Your task to perform on an android device: Open Google Chrome Image 0: 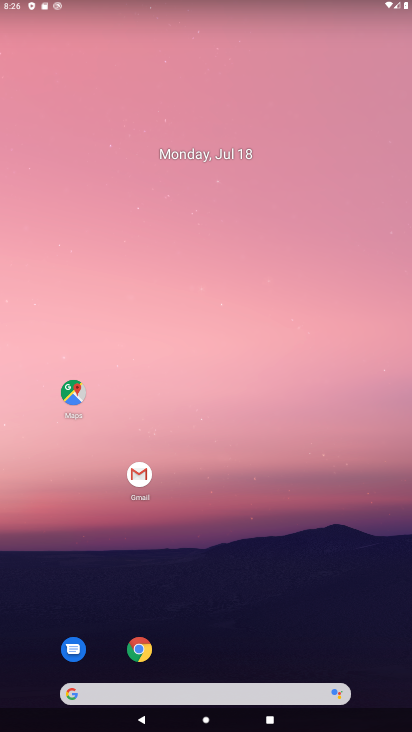
Step 0: click (139, 652)
Your task to perform on an android device: Open Google Chrome Image 1: 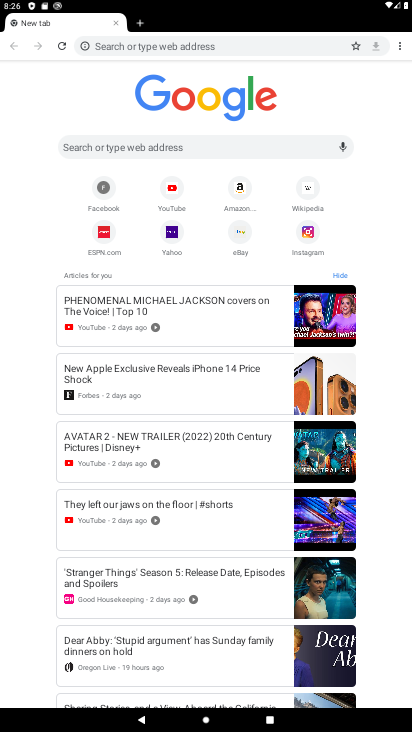
Step 1: task complete